Your task to perform on an android device: Go to network settings Image 0: 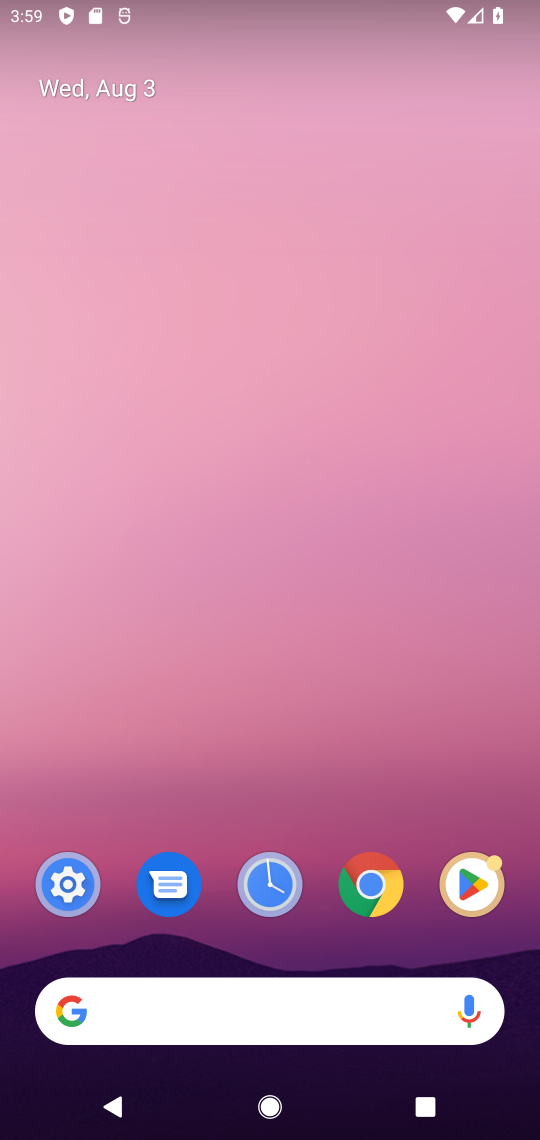
Step 0: press home button
Your task to perform on an android device: Go to network settings Image 1: 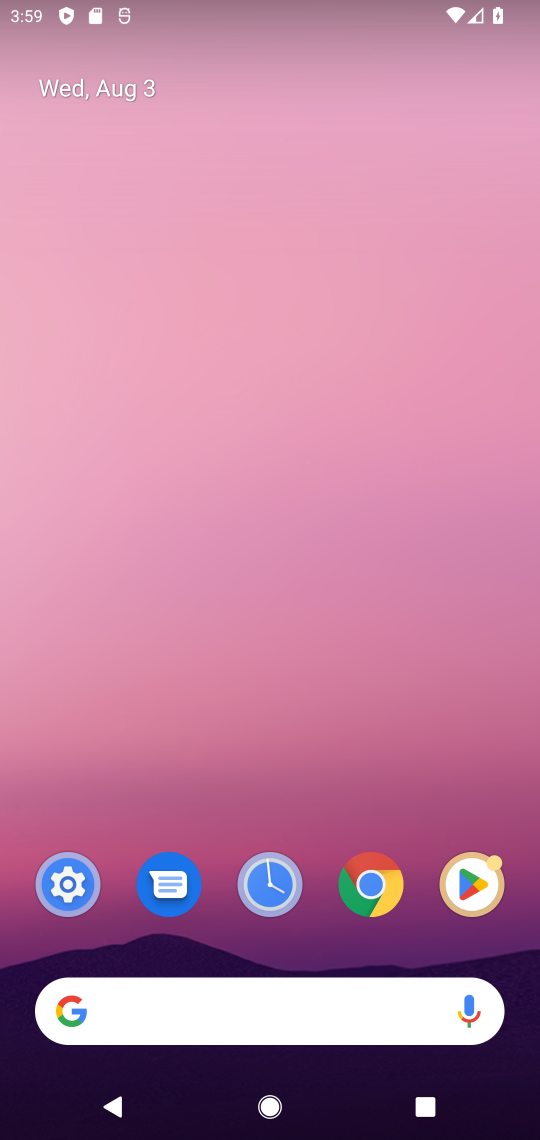
Step 1: drag from (310, 948) to (286, 0)
Your task to perform on an android device: Go to network settings Image 2: 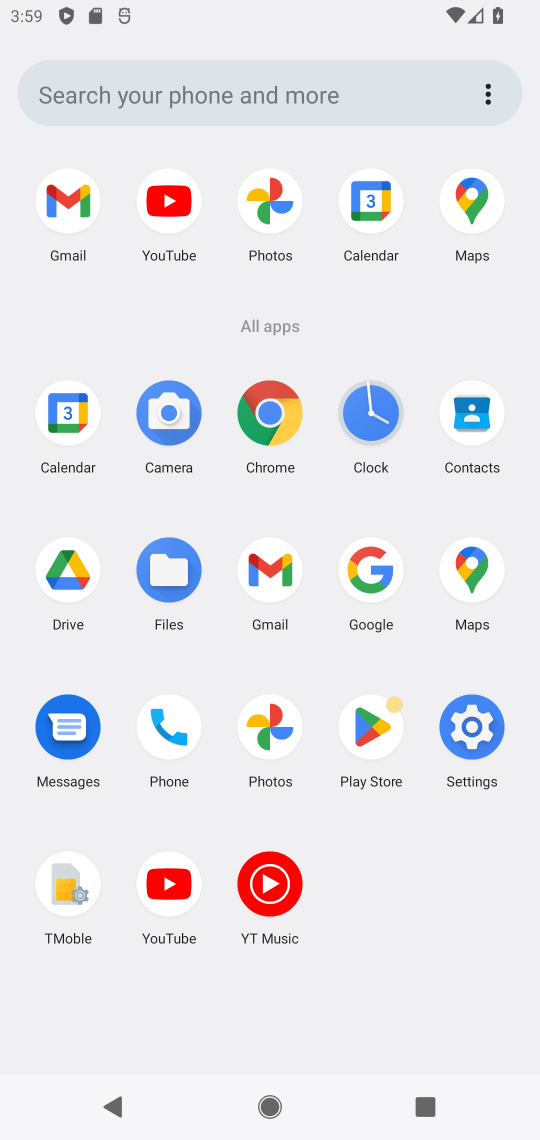
Step 2: click (473, 719)
Your task to perform on an android device: Go to network settings Image 3: 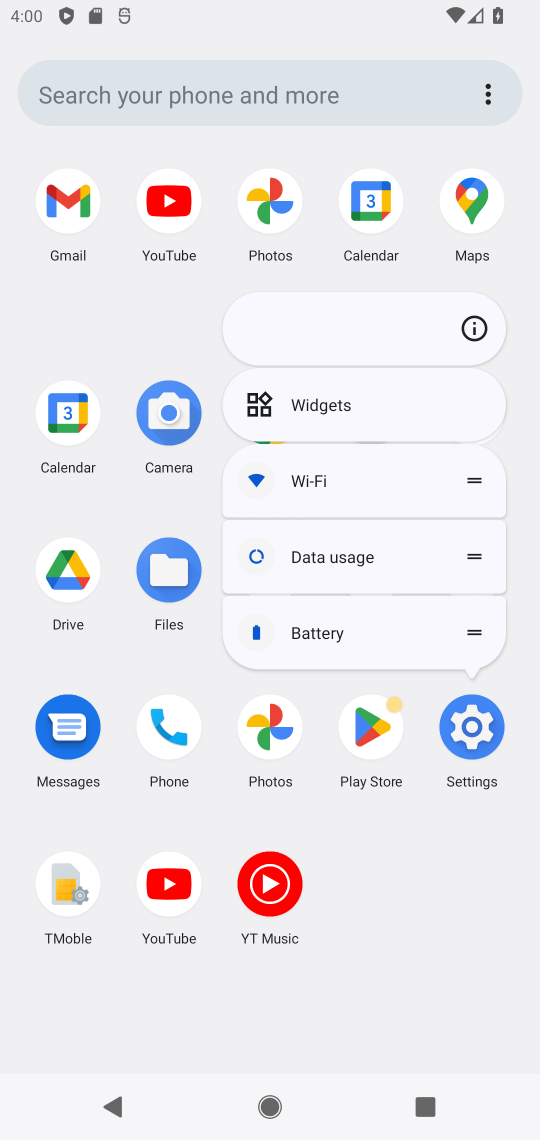
Step 3: click (473, 719)
Your task to perform on an android device: Go to network settings Image 4: 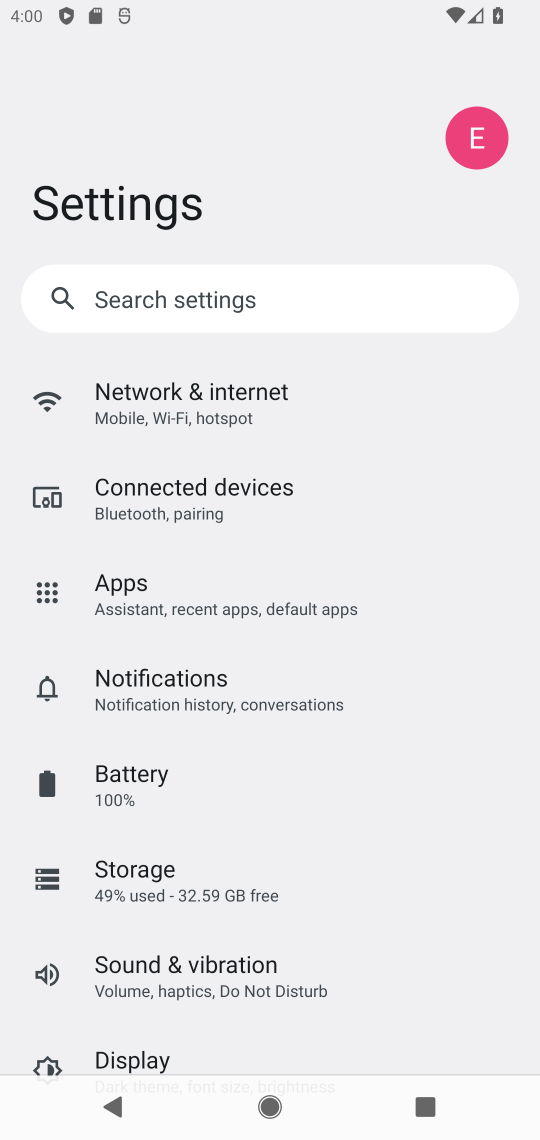
Step 4: click (222, 397)
Your task to perform on an android device: Go to network settings Image 5: 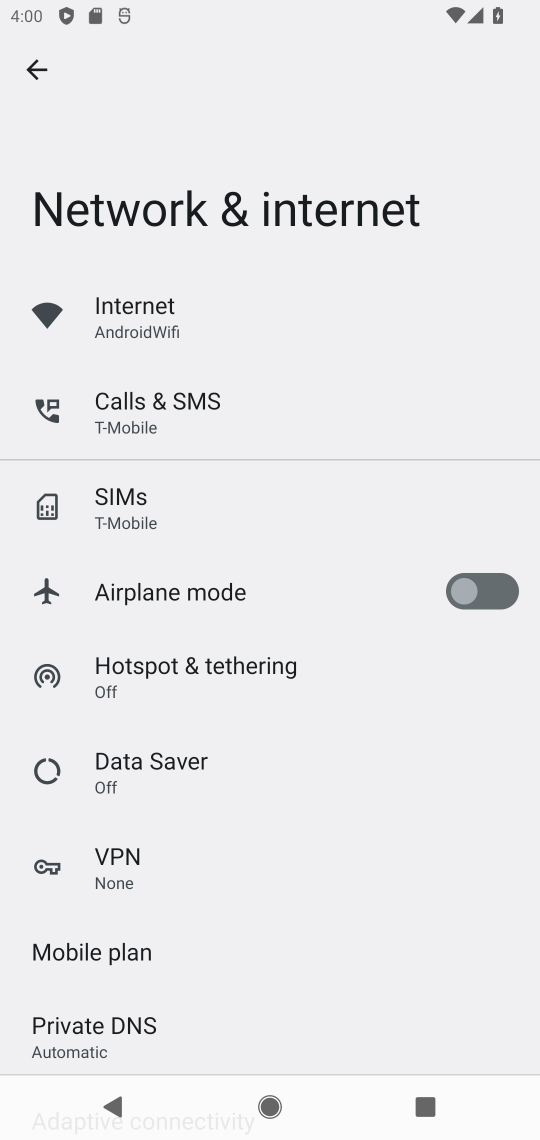
Step 5: task complete